Your task to perform on an android device: turn off javascript in the chrome app Image 0: 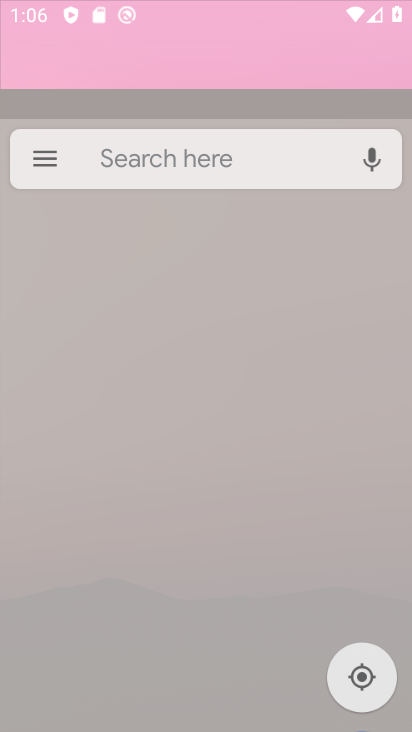
Step 0: click (263, 520)
Your task to perform on an android device: turn off javascript in the chrome app Image 1: 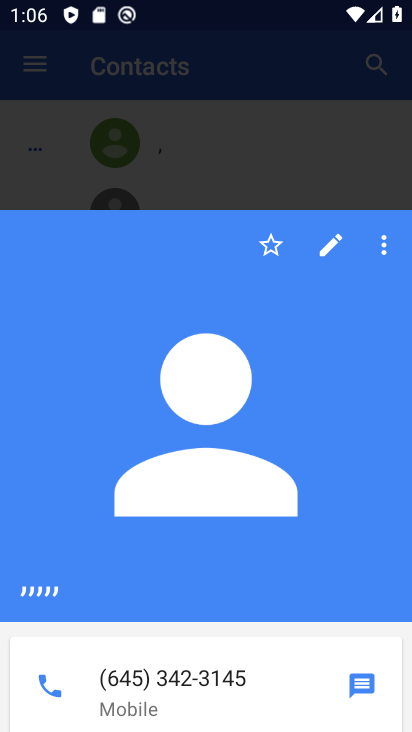
Step 1: press home button
Your task to perform on an android device: turn off javascript in the chrome app Image 2: 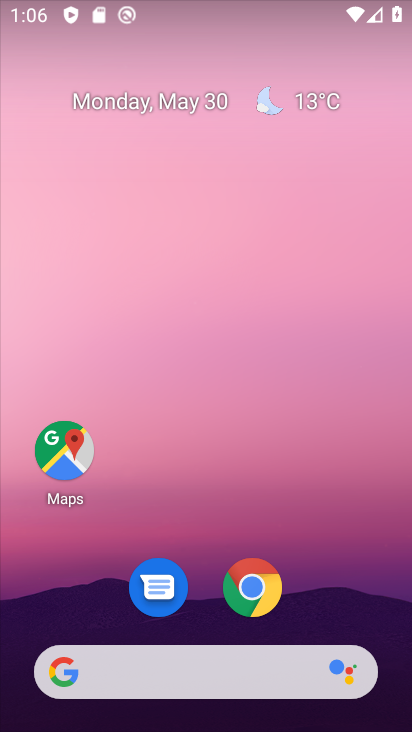
Step 2: drag from (242, 107) to (172, 600)
Your task to perform on an android device: turn off javascript in the chrome app Image 3: 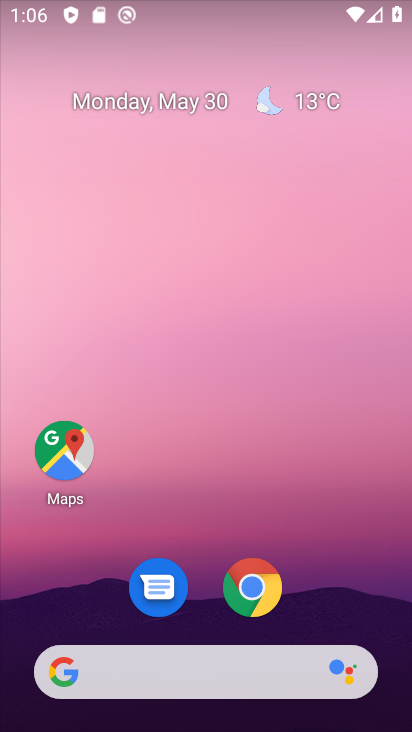
Step 3: click (252, 589)
Your task to perform on an android device: turn off javascript in the chrome app Image 4: 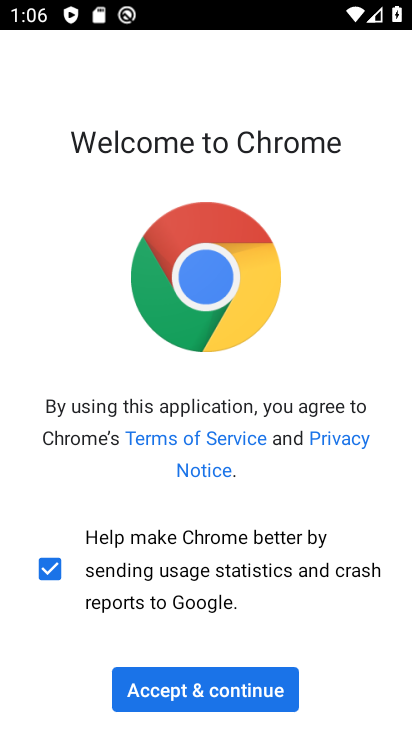
Step 4: click (212, 695)
Your task to perform on an android device: turn off javascript in the chrome app Image 5: 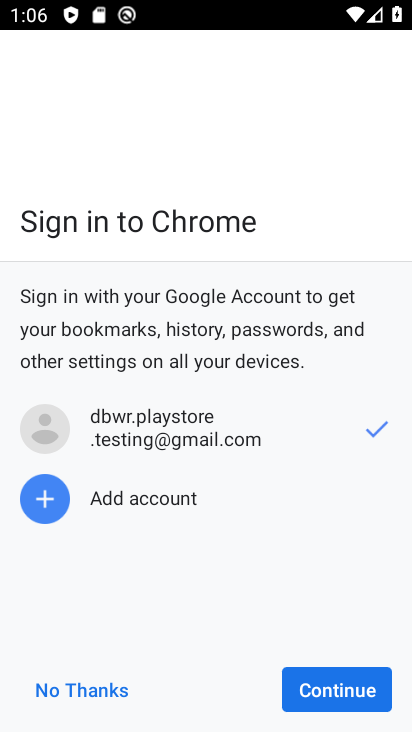
Step 5: click (360, 674)
Your task to perform on an android device: turn off javascript in the chrome app Image 6: 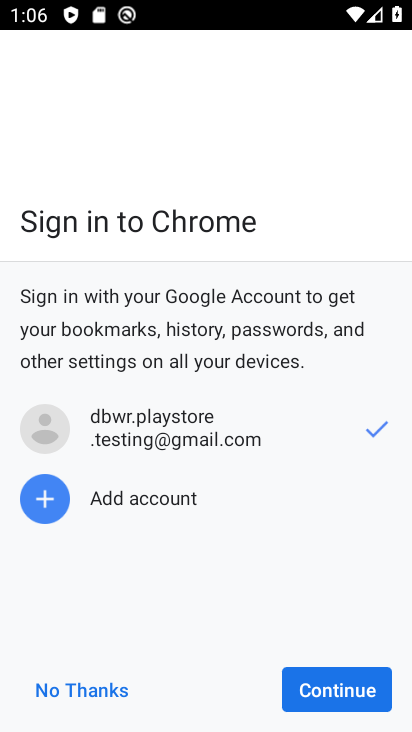
Step 6: click (360, 674)
Your task to perform on an android device: turn off javascript in the chrome app Image 7: 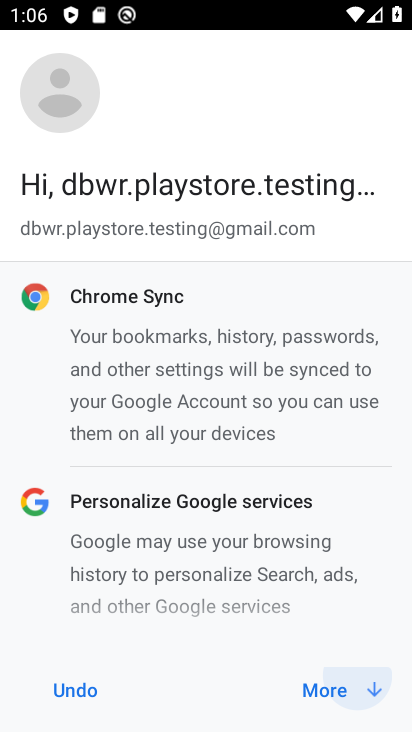
Step 7: click (360, 674)
Your task to perform on an android device: turn off javascript in the chrome app Image 8: 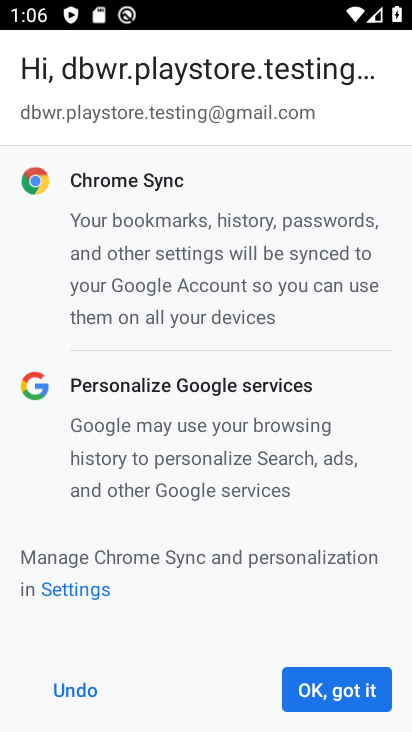
Step 8: click (359, 681)
Your task to perform on an android device: turn off javascript in the chrome app Image 9: 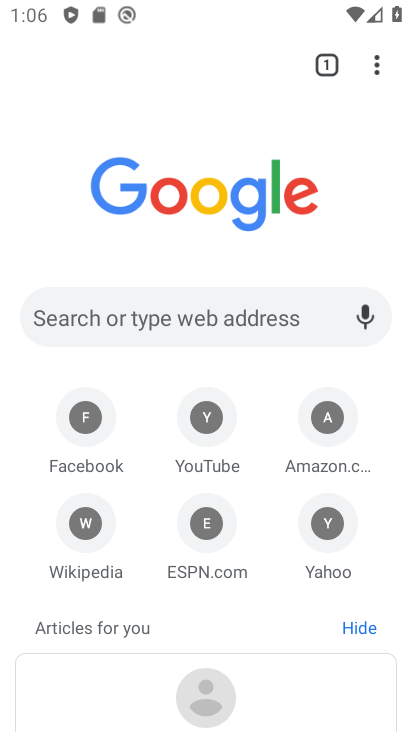
Step 9: click (377, 67)
Your task to perform on an android device: turn off javascript in the chrome app Image 10: 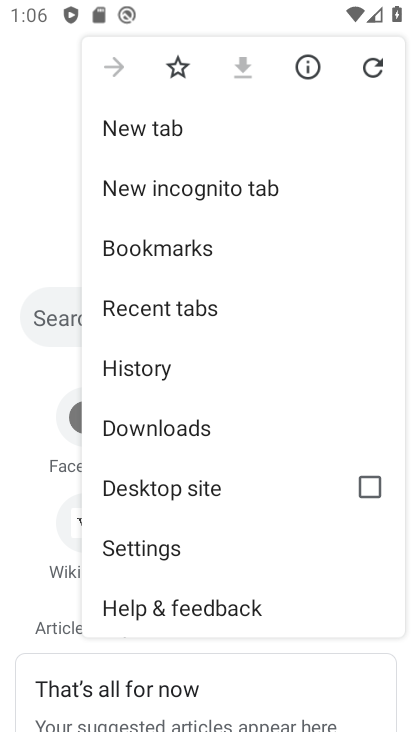
Step 10: click (231, 540)
Your task to perform on an android device: turn off javascript in the chrome app Image 11: 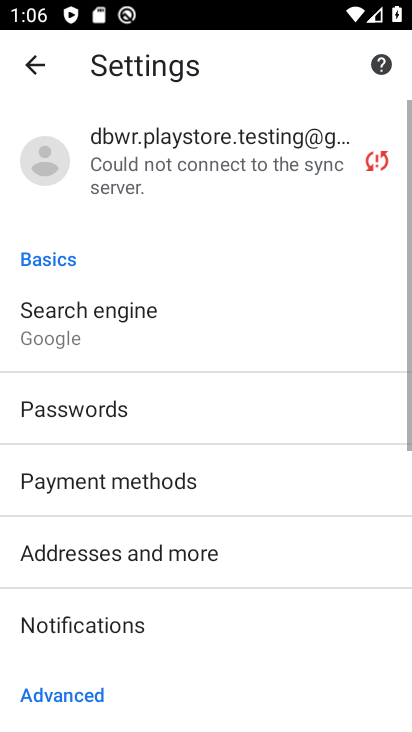
Step 11: drag from (205, 628) to (220, 94)
Your task to perform on an android device: turn off javascript in the chrome app Image 12: 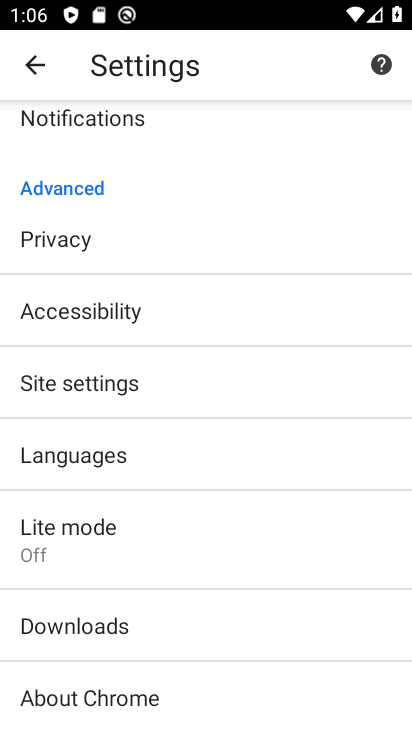
Step 12: click (157, 396)
Your task to perform on an android device: turn off javascript in the chrome app Image 13: 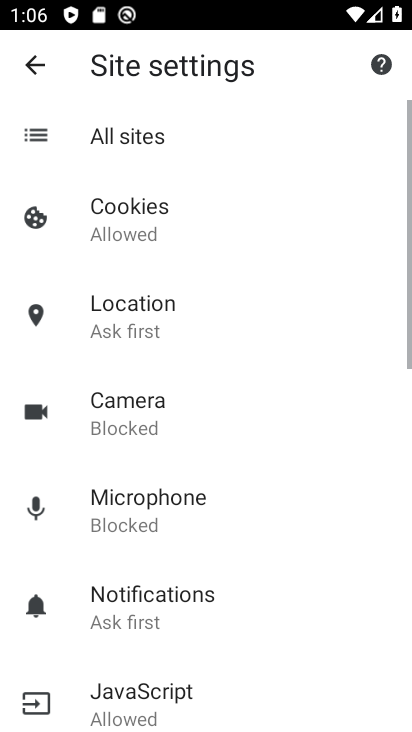
Step 13: drag from (206, 582) to (196, 115)
Your task to perform on an android device: turn off javascript in the chrome app Image 14: 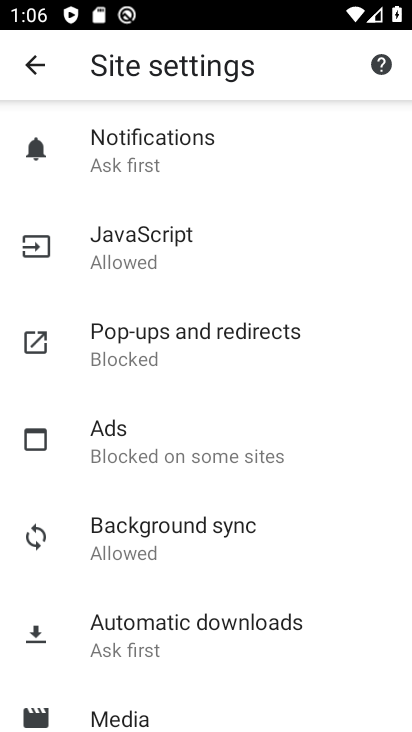
Step 14: click (172, 242)
Your task to perform on an android device: turn off javascript in the chrome app Image 15: 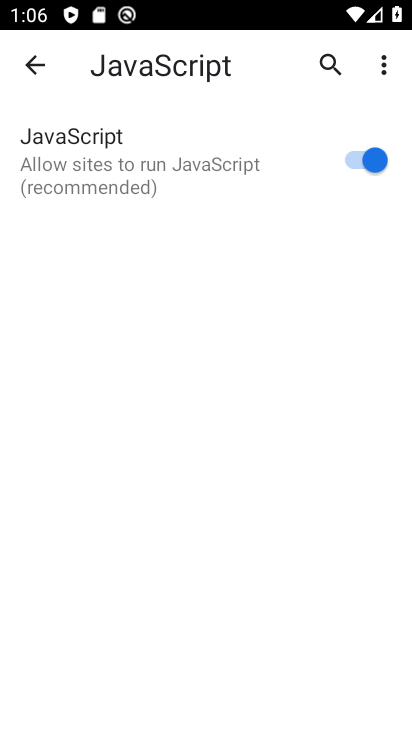
Step 15: click (360, 164)
Your task to perform on an android device: turn off javascript in the chrome app Image 16: 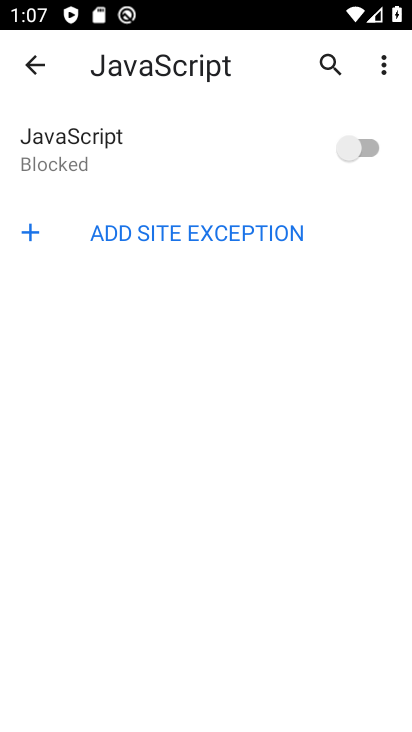
Step 16: task complete